Your task to perform on an android device: change notification settings in the gmail app Image 0: 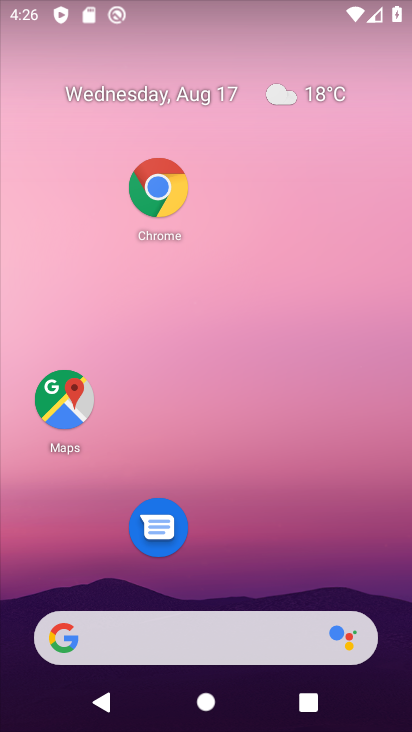
Step 0: drag from (182, 581) to (244, 0)
Your task to perform on an android device: change notification settings in the gmail app Image 1: 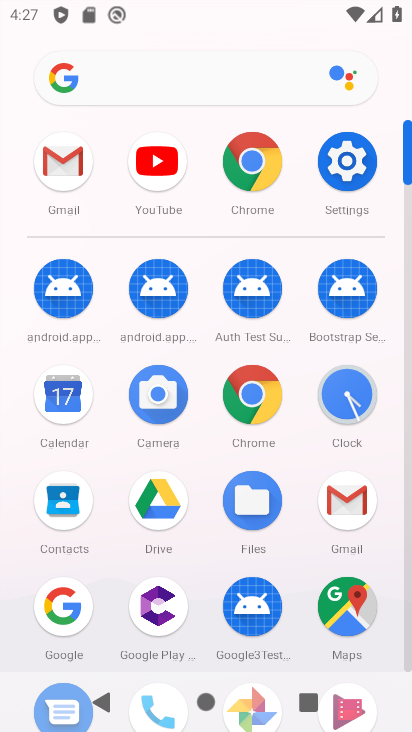
Step 1: click (358, 168)
Your task to perform on an android device: change notification settings in the gmail app Image 2: 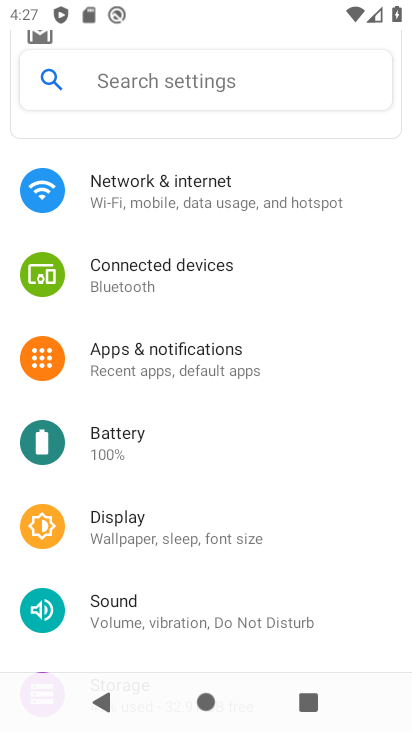
Step 2: click (210, 345)
Your task to perform on an android device: change notification settings in the gmail app Image 3: 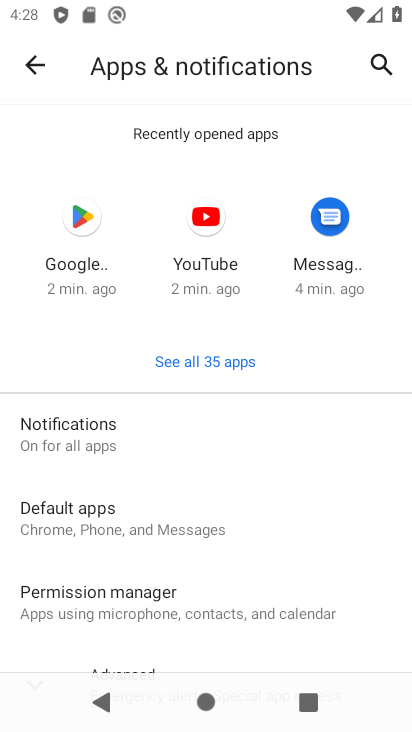
Step 3: click (202, 362)
Your task to perform on an android device: change notification settings in the gmail app Image 4: 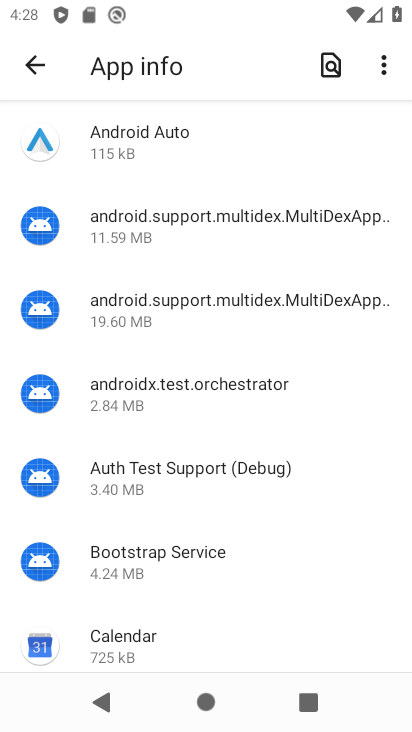
Step 4: drag from (197, 620) to (247, 147)
Your task to perform on an android device: change notification settings in the gmail app Image 5: 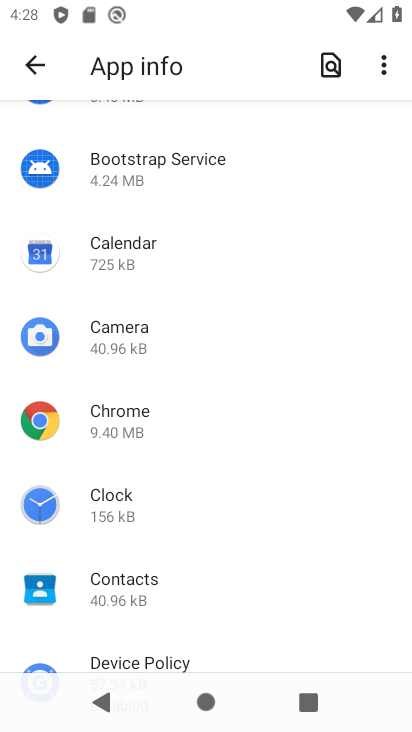
Step 5: drag from (127, 641) to (42, 143)
Your task to perform on an android device: change notification settings in the gmail app Image 6: 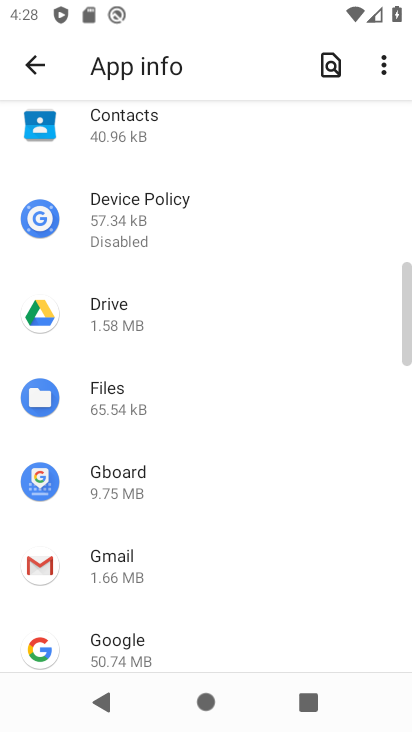
Step 6: click (126, 558)
Your task to perform on an android device: change notification settings in the gmail app Image 7: 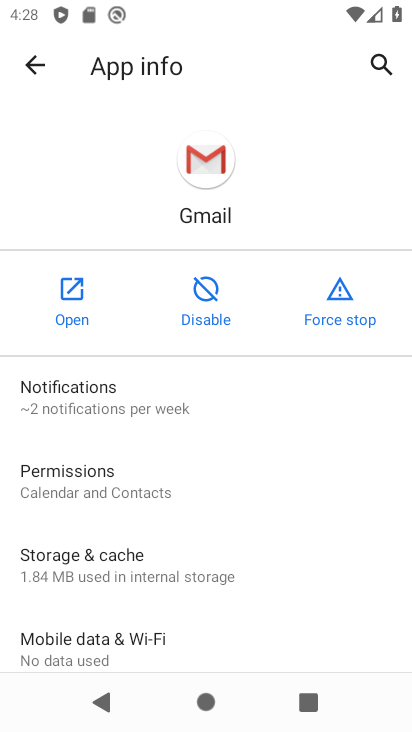
Step 7: click (155, 401)
Your task to perform on an android device: change notification settings in the gmail app Image 8: 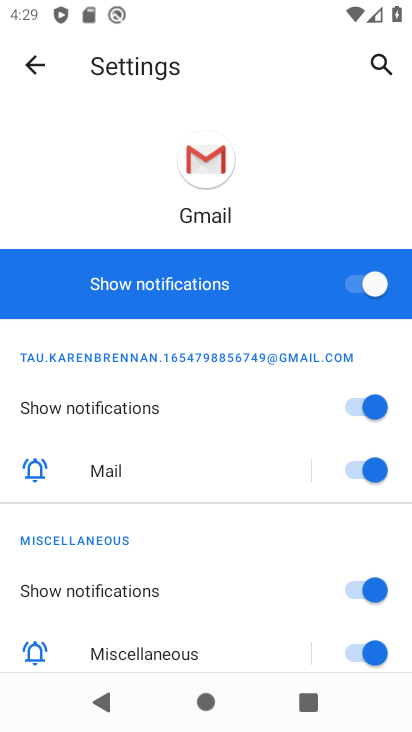
Step 8: click (375, 391)
Your task to perform on an android device: change notification settings in the gmail app Image 9: 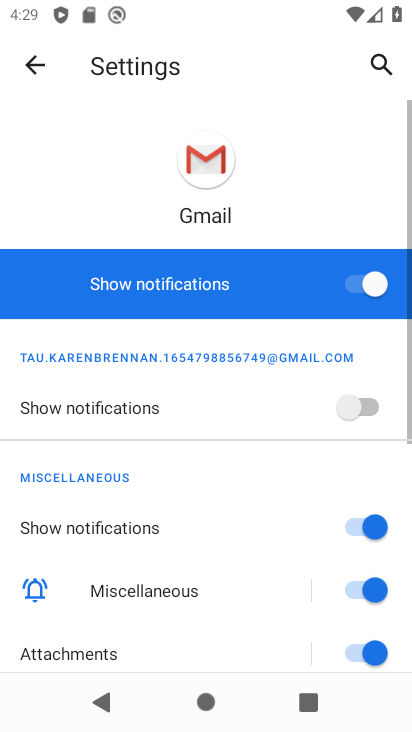
Step 9: click (374, 583)
Your task to perform on an android device: change notification settings in the gmail app Image 10: 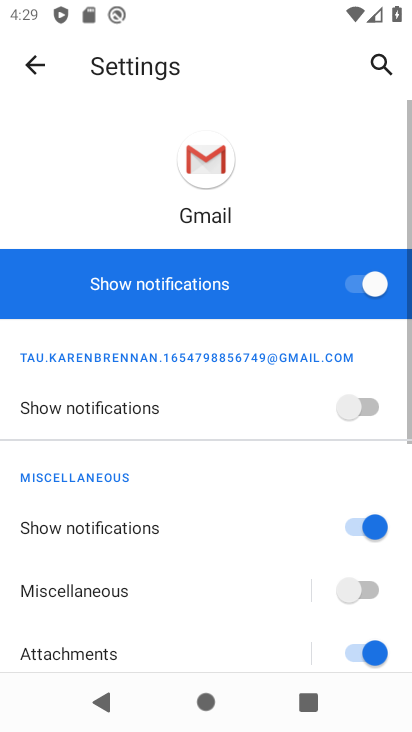
Step 10: click (367, 531)
Your task to perform on an android device: change notification settings in the gmail app Image 11: 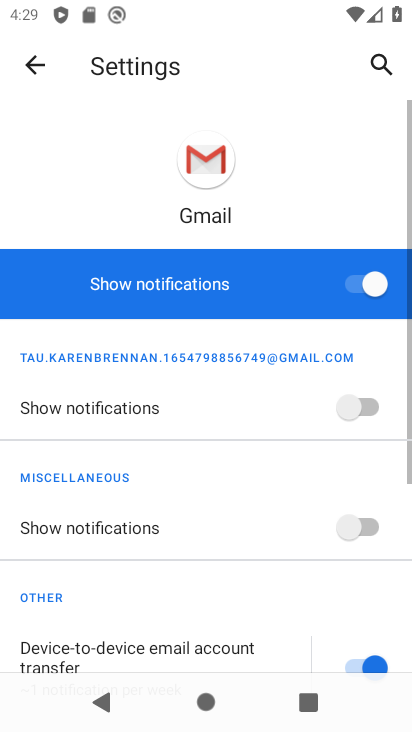
Step 11: task complete